Your task to perform on an android device: add a contact Image 0: 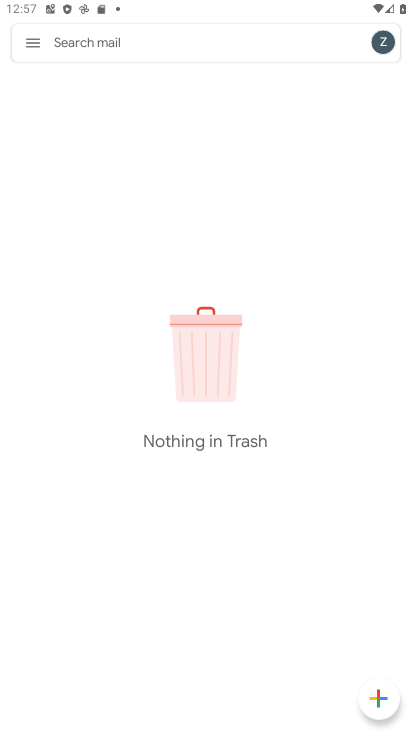
Step 0: press home button
Your task to perform on an android device: add a contact Image 1: 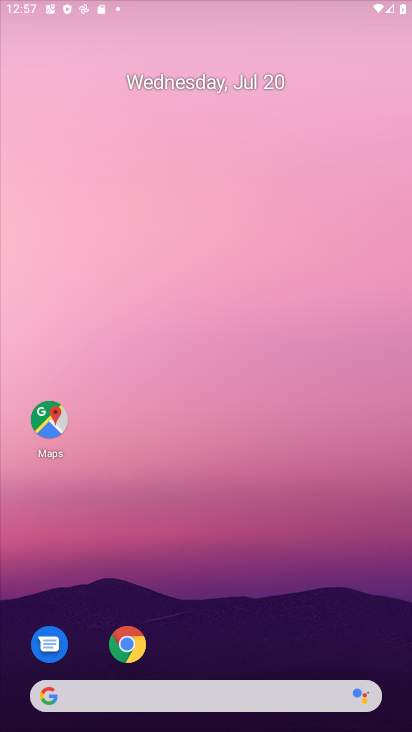
Step 1: drag from (214, 634) to (192, 168)
Your task to perform on an android device: add a contact Image 2: 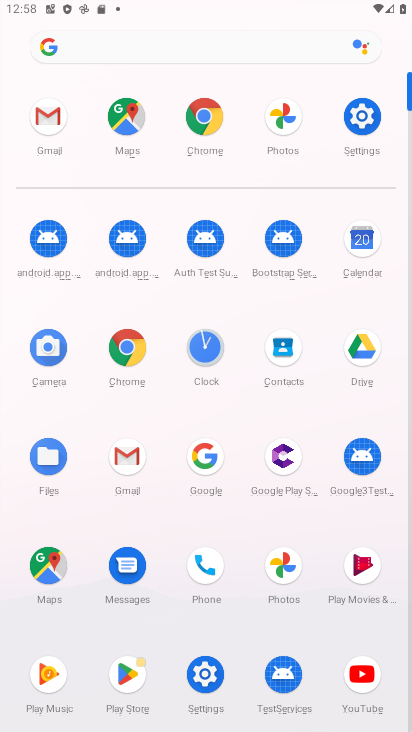
Step 2: click (275, 368)
Your task to perform on an android device: add a contact Image 3: 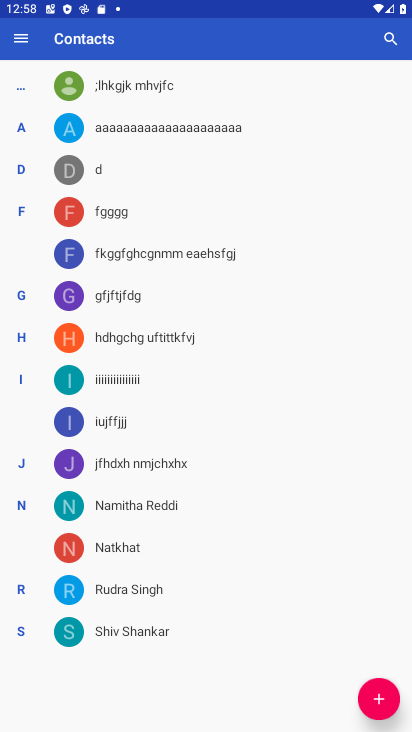
Step 3: click (370, 706)
Your task to perform on an android device: add a contact Image 4: 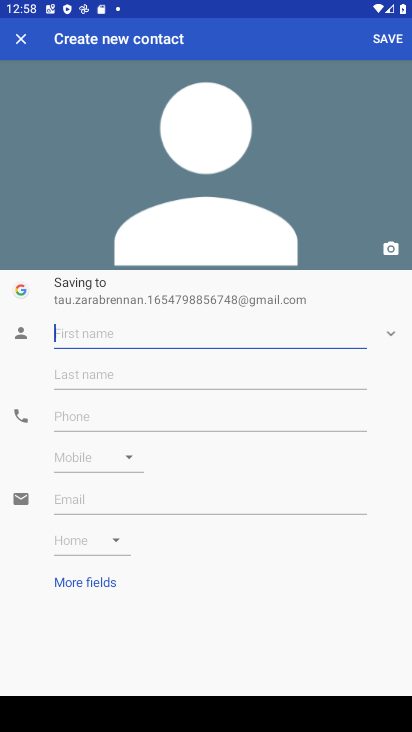
Step 4: type "gkmgl"
Your task to perform on an android device: add a contact Image 5: 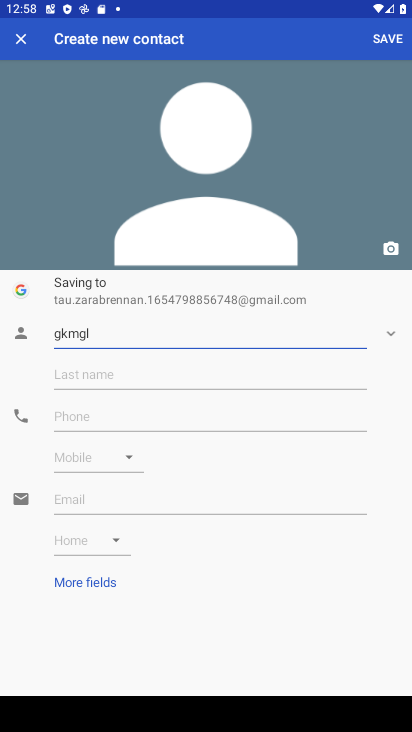
Step 5: click (112, 413)
Your task to perform on an android device: add a contact Image 6: 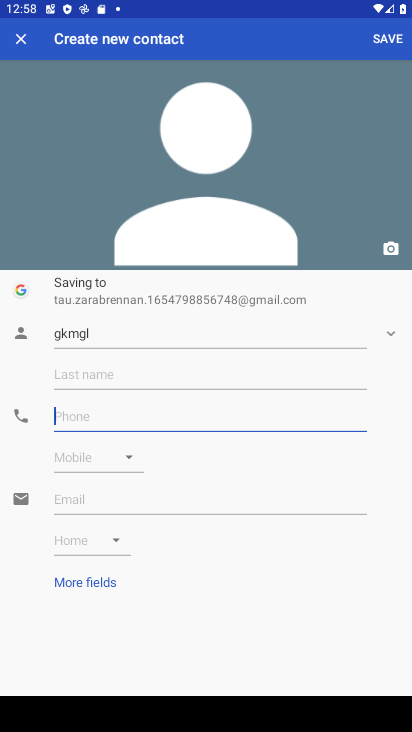
Step 6: type "45879"
Your task to perform on an android device: add a contact Image 7: 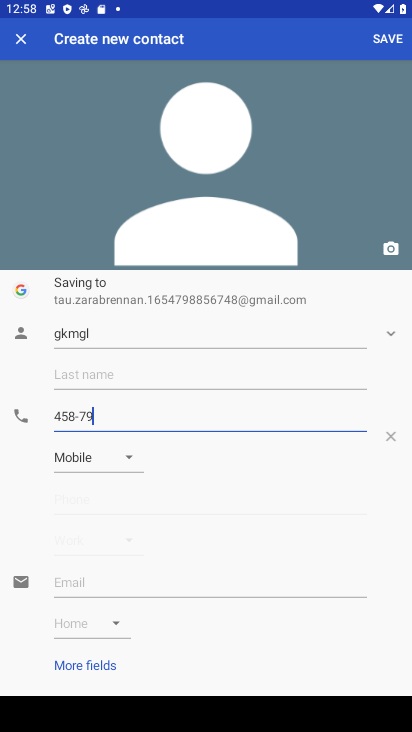
Step 7: type ""
Your task to perform on an android device: add a contact Image 8: 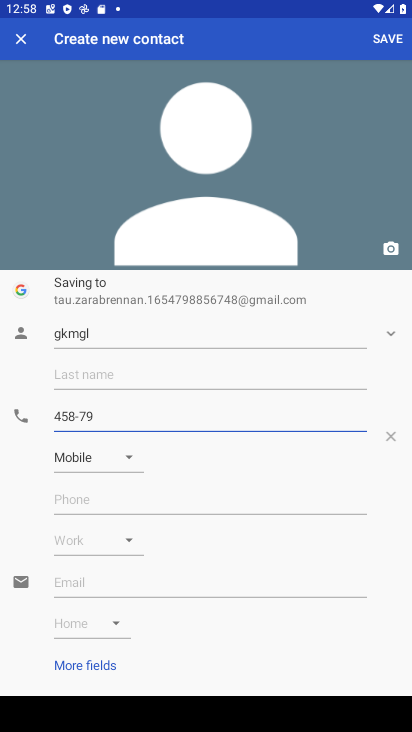
Step 8: click (384, 37)
Your task to perform on an android device: add a contact Image 9: 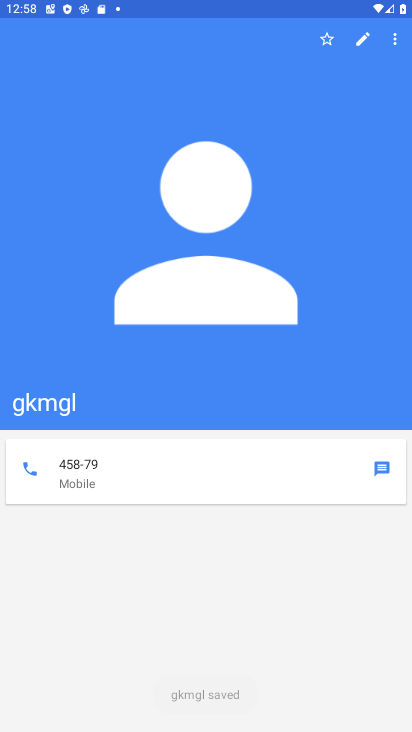
Step 9: task complete